Your task to perform on an android device: Look up the best rated pressure washer on Home Depot. Image 0: 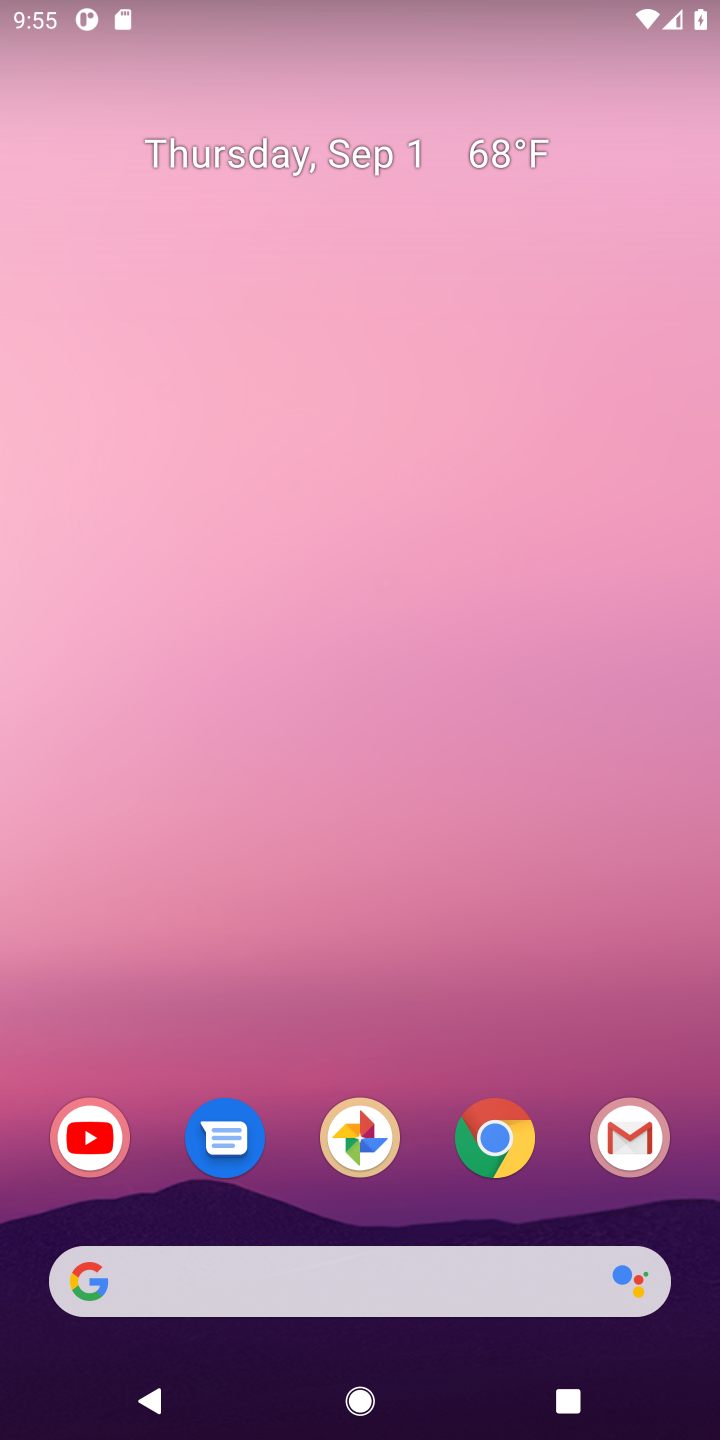
Step 0: drag from (394, 1168) to (414, 310)
Your task to perform on an android device: Look up the best rated pressure washer on Home Depot. Image 1: 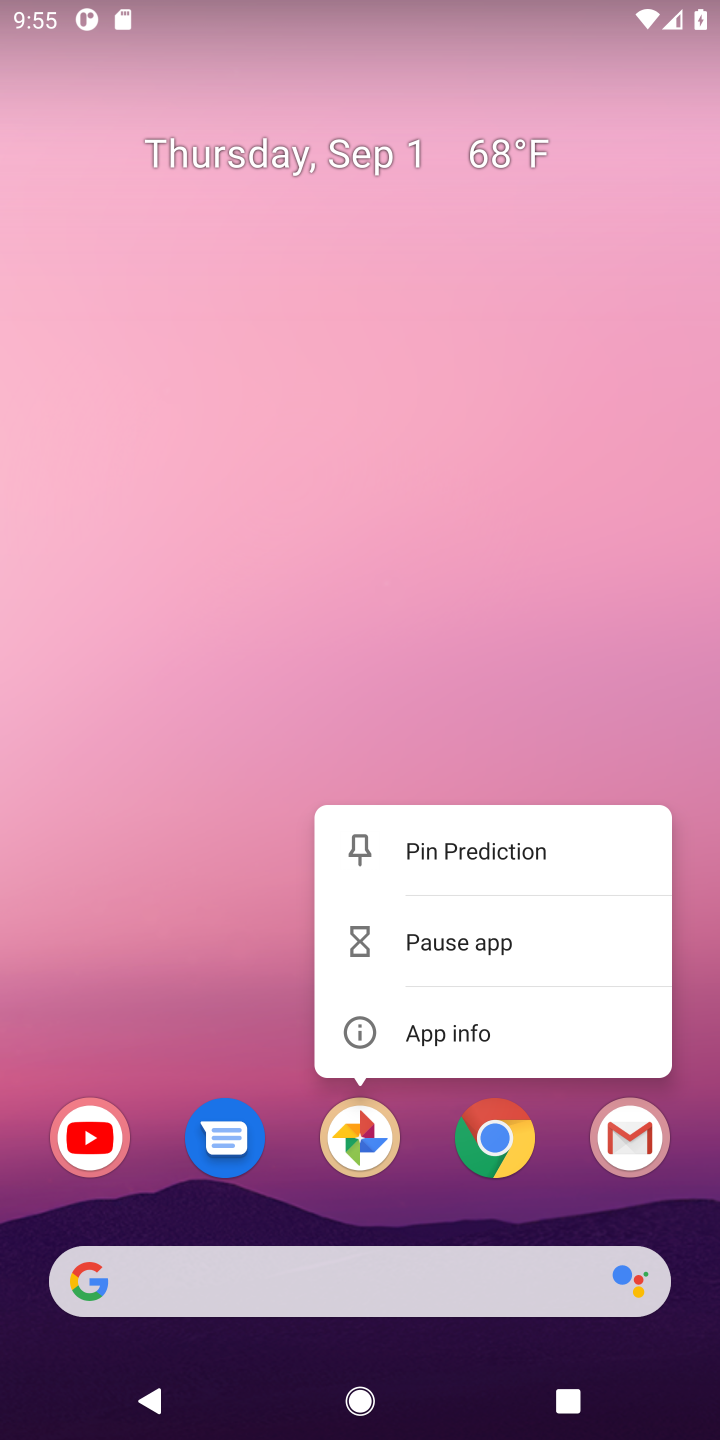
Step 1: click (360, 1168)
Your task to perform on an android device: Look up the best rated pressure washer on Home Depot. Image 2: 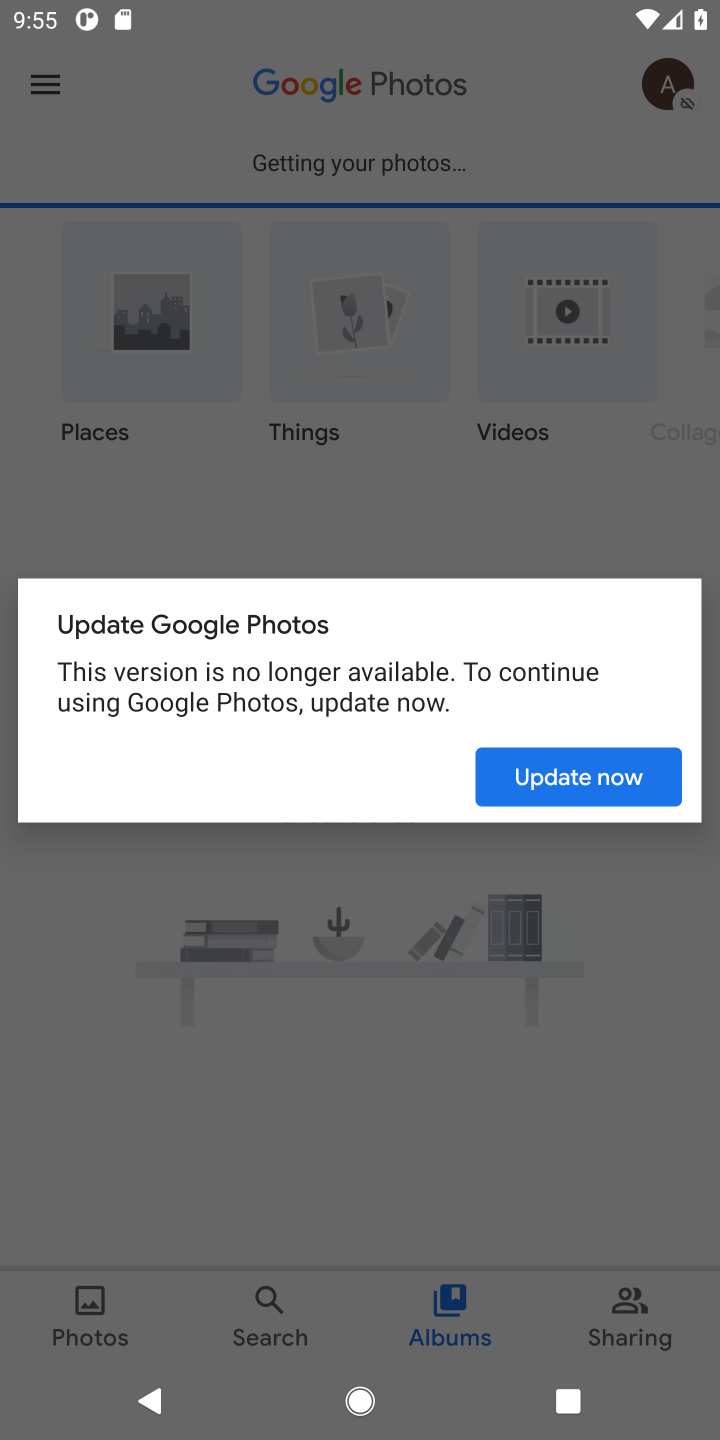
Step 2: click (501, 1157)
Your task to perform on an android device: Look up the best rated pressure washer on Home Depot. Image 3: 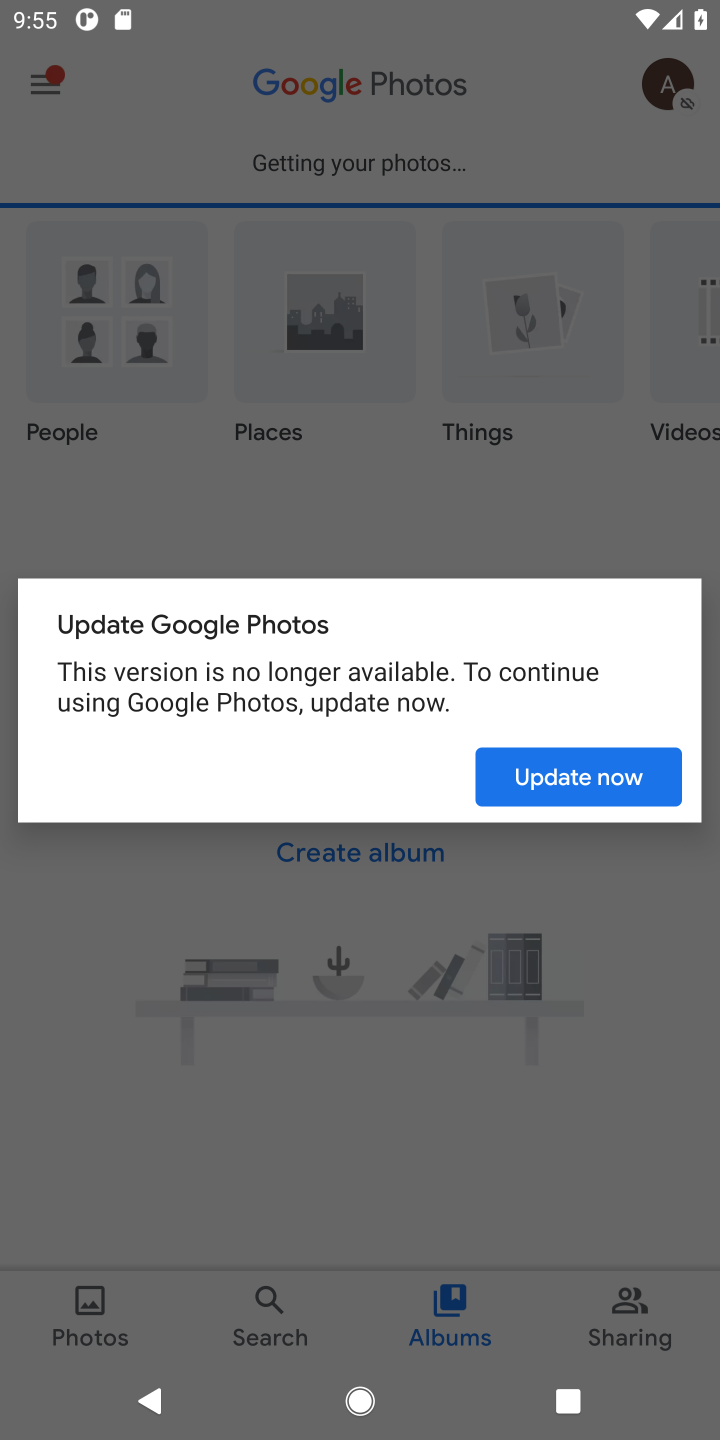
Step 3: click (578, 1037)
Your task to perform on an android device: Look up the best rated pressure washer on Home Depot. Image 4: 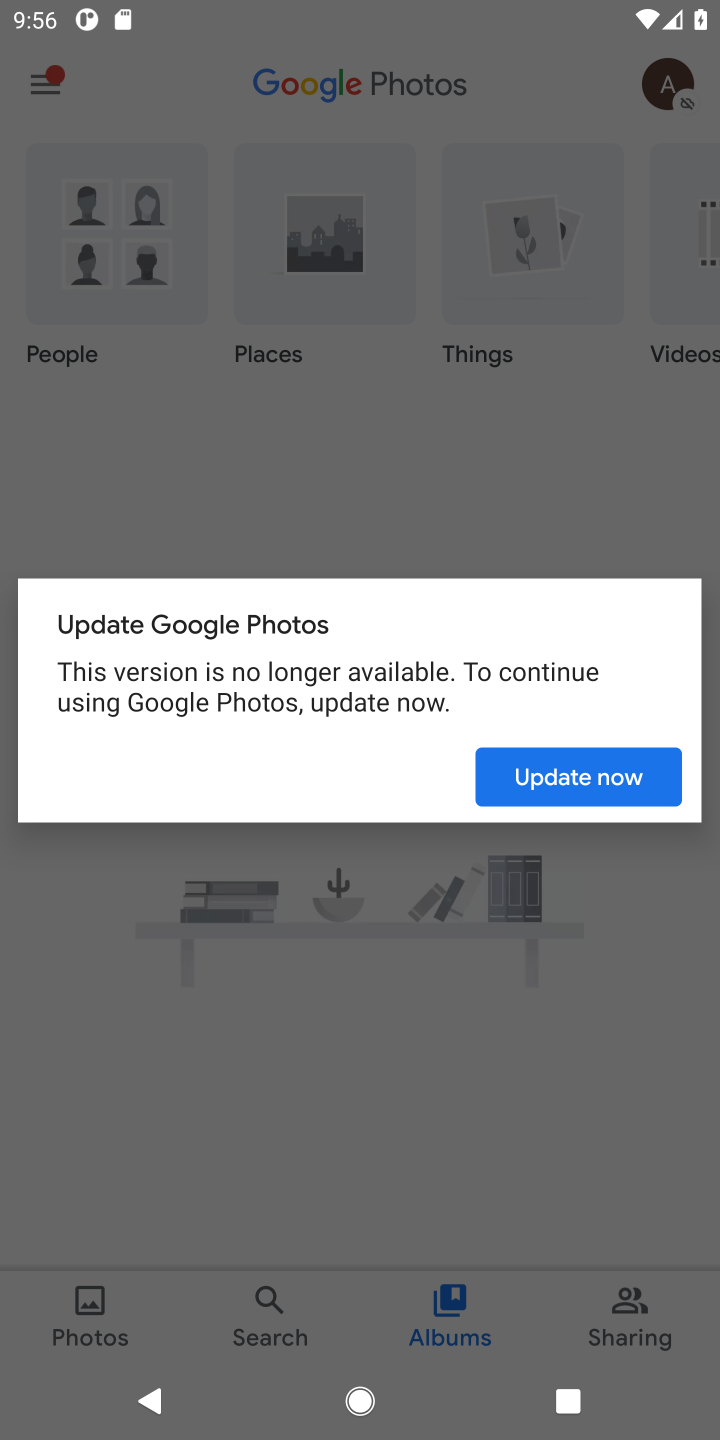
Step 4: press home button
Your task to perform on an android device: Look up the best rated pressure washer on Home Depot. Image 5: 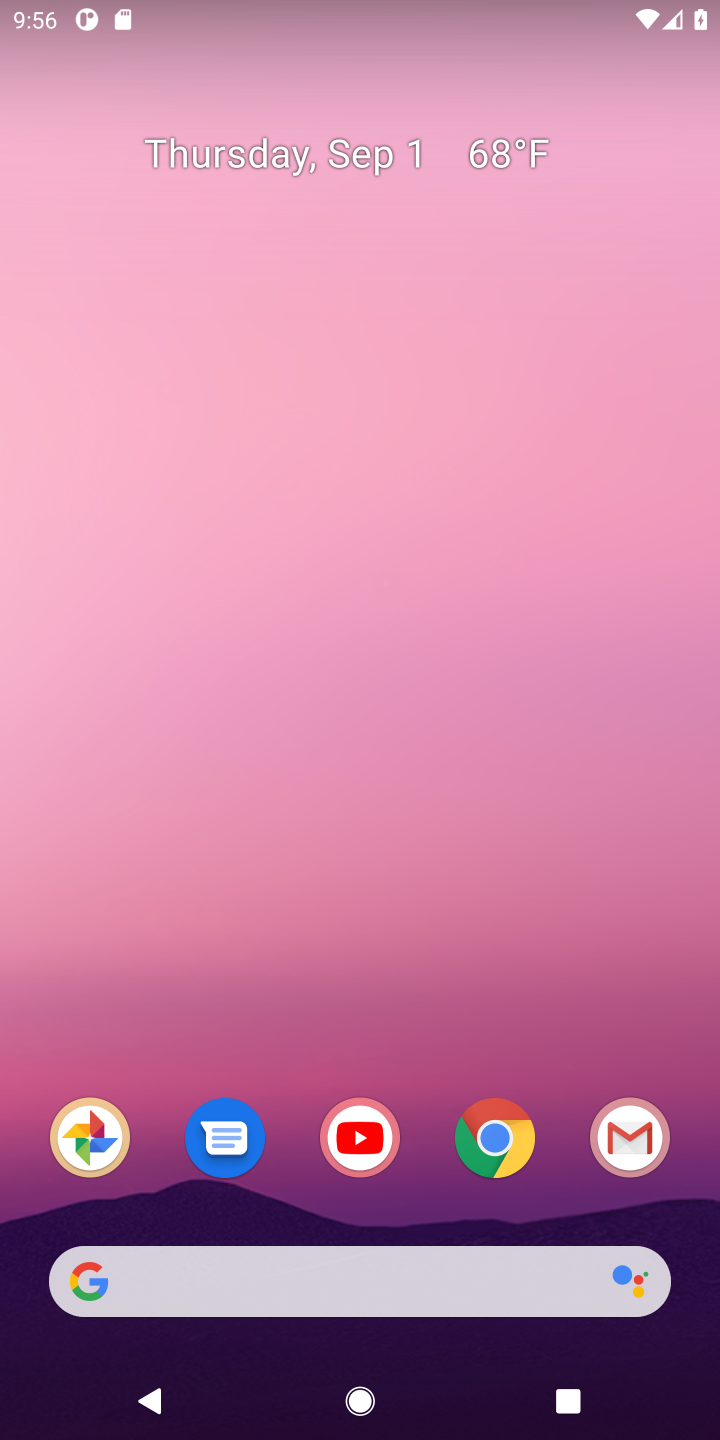
Step 5: click (361, 1311)
Your task to perform on an android device: Look up the best rated pressure washer on Home Depot. Image 6: 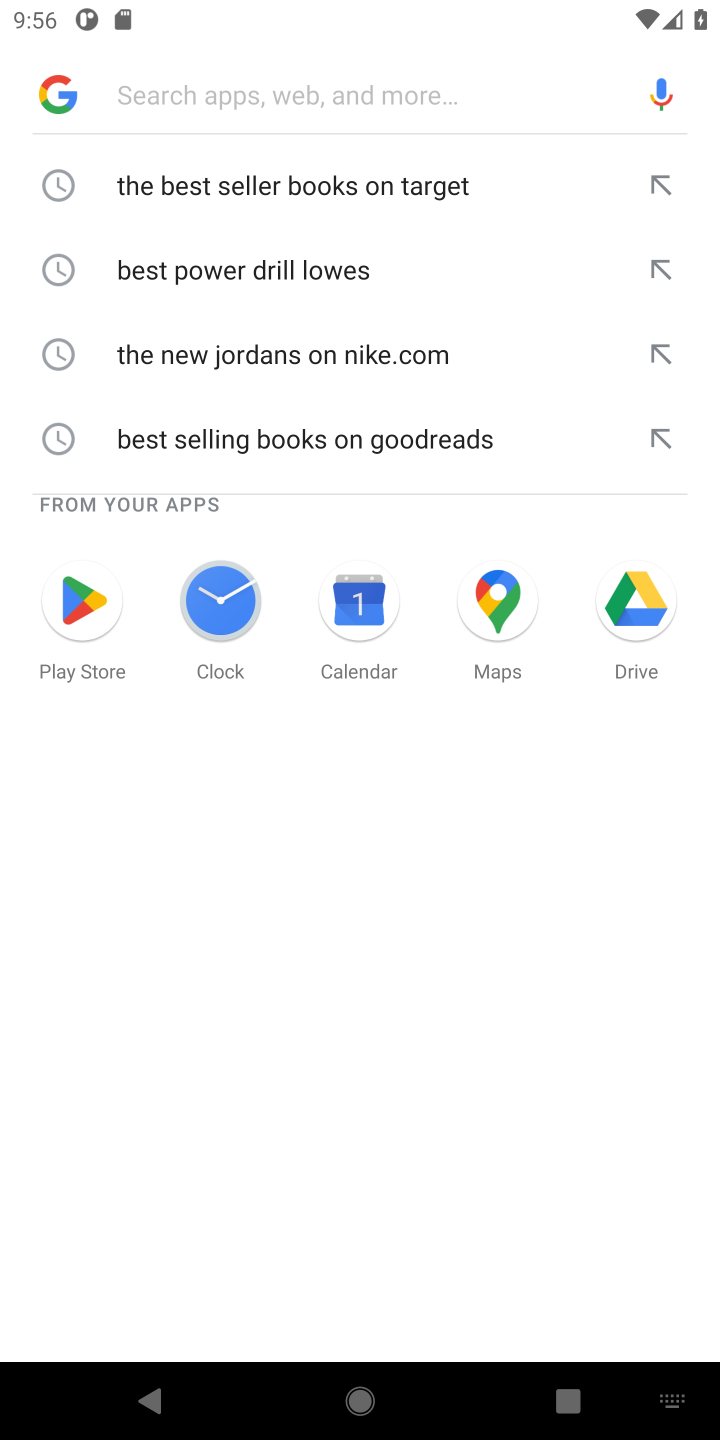
Step 6: type " the best rated pressure washer on Home Depot."
Your task to perform on an android device: Look up the best rated pressure washer on Home Depot. Image 7: 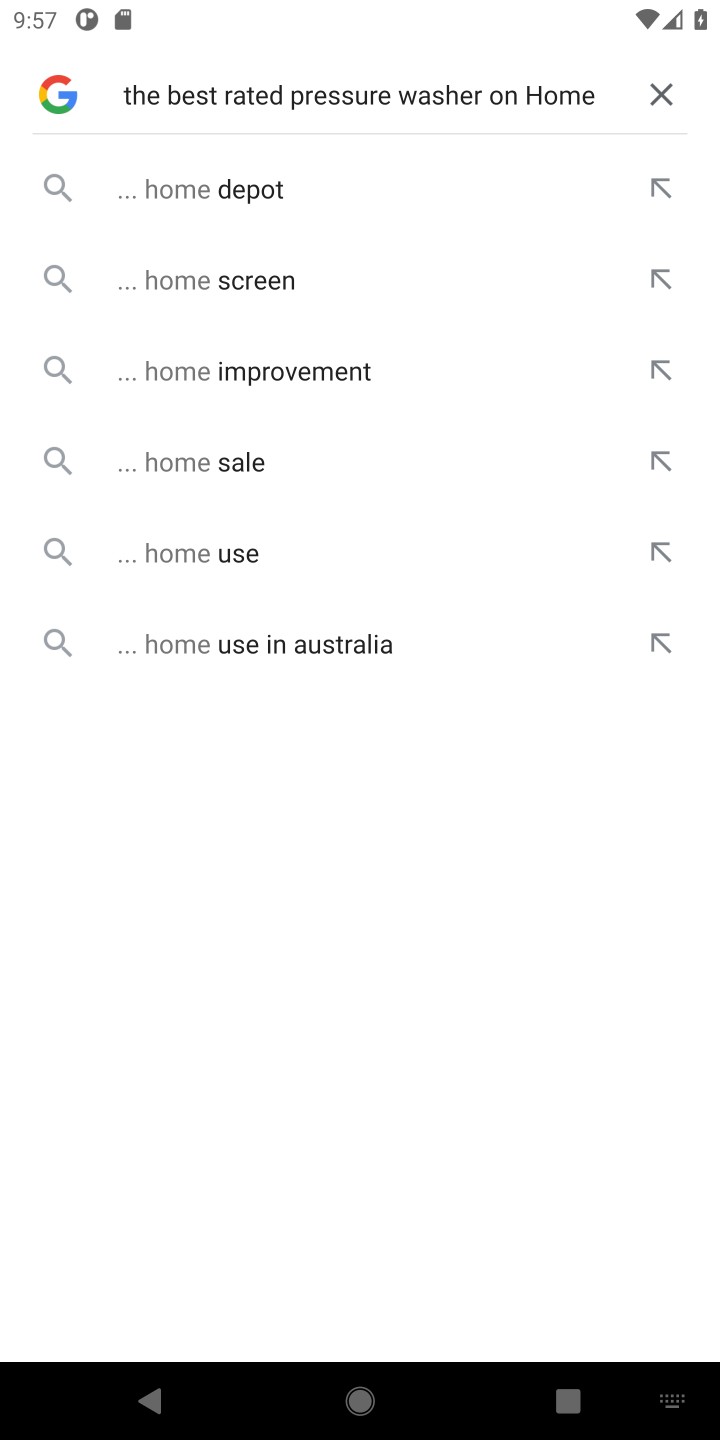
Step 7: click (187, 186)
Your task to perform on an android device: Look up the best rated pressure washer on Home Depot. Image 8: 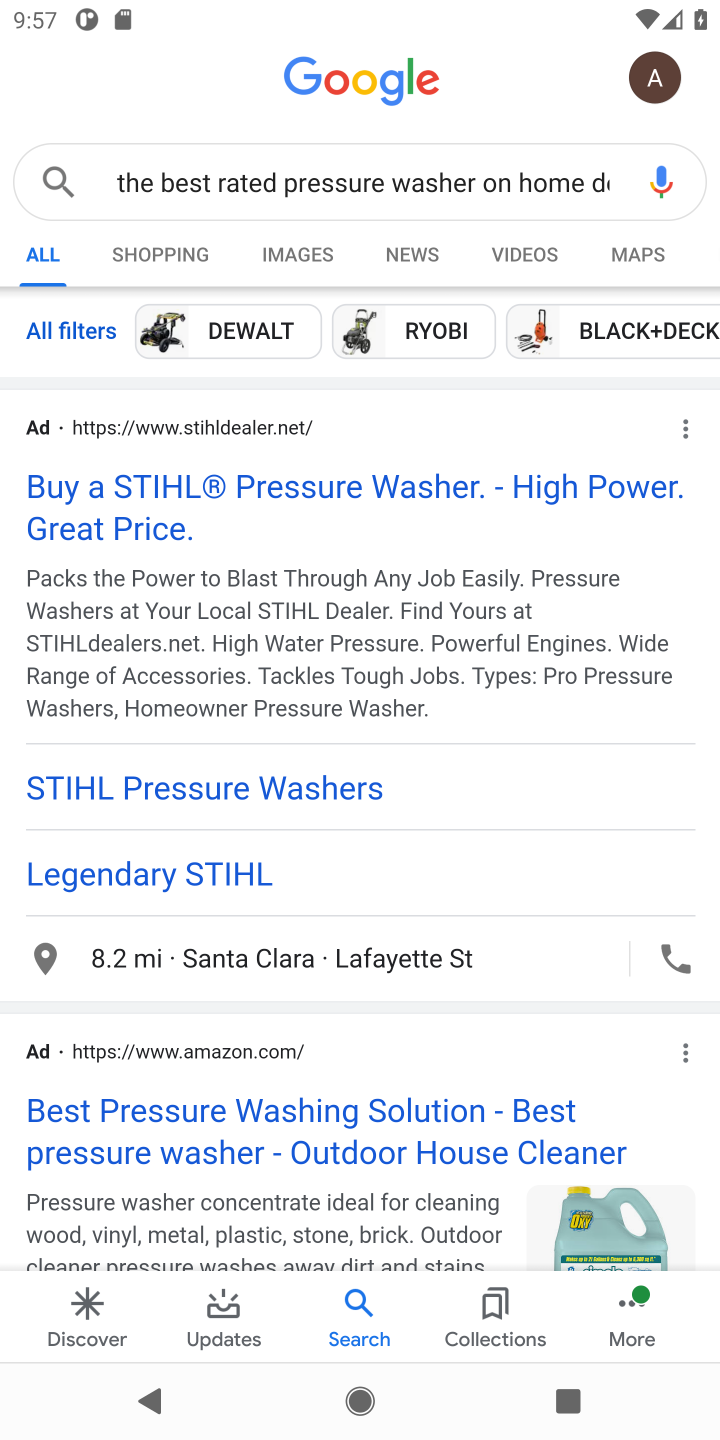
Step 8: click (140, 486)
Your task to perform on an android device: Look up the best rated pressure washer on Home Depot. Image 9: 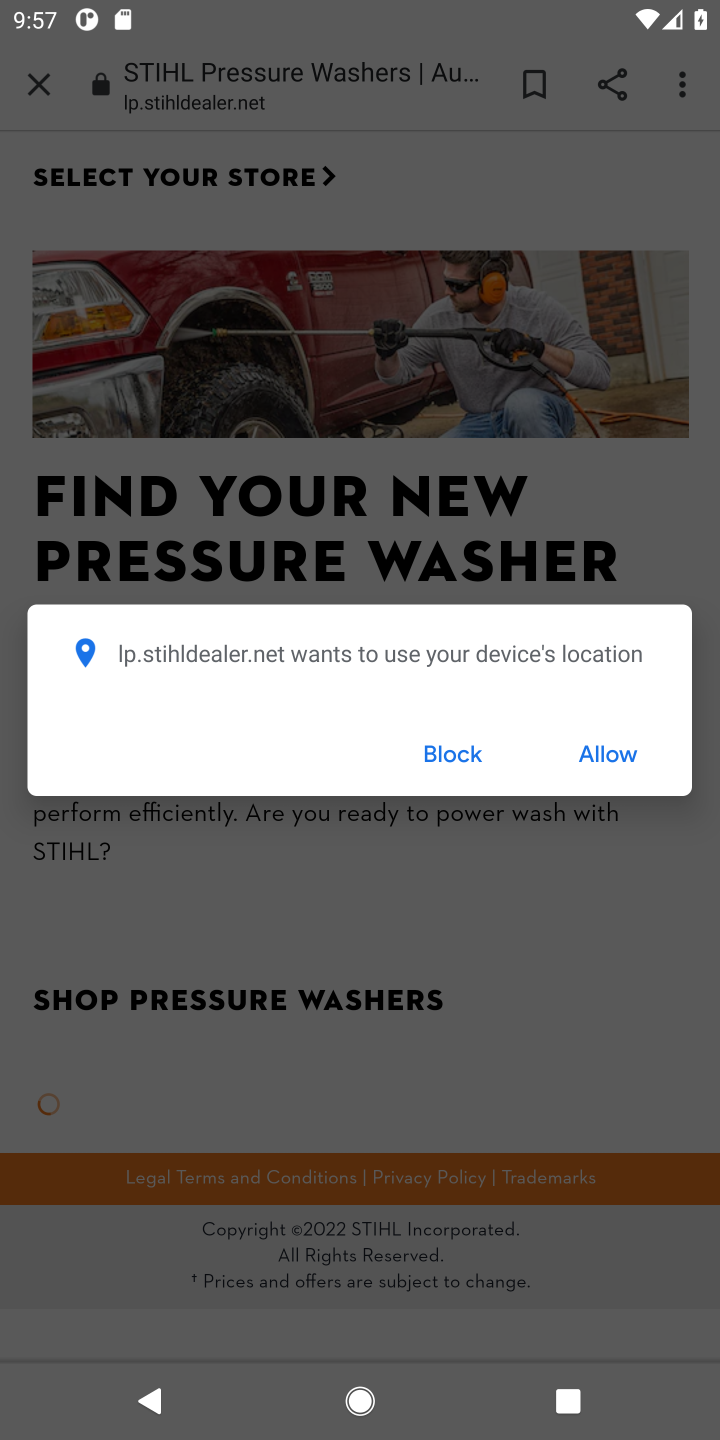
Step 9: click (610, 747)
Your task to perform on an android device: Look up the best rated pressure washer on Home Depot. Image 10: 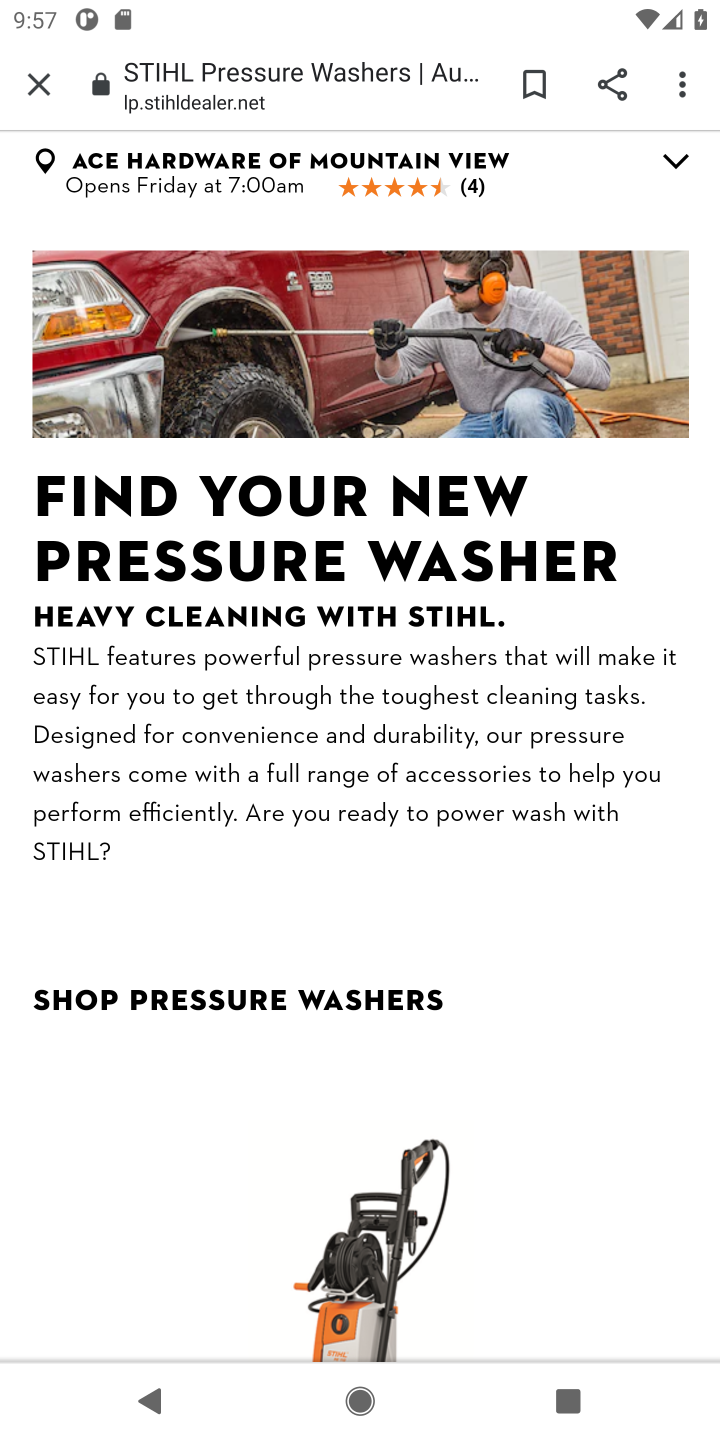
Step 10: task complete